Your task to perform on an android device: turn on airplane mode Image 0: 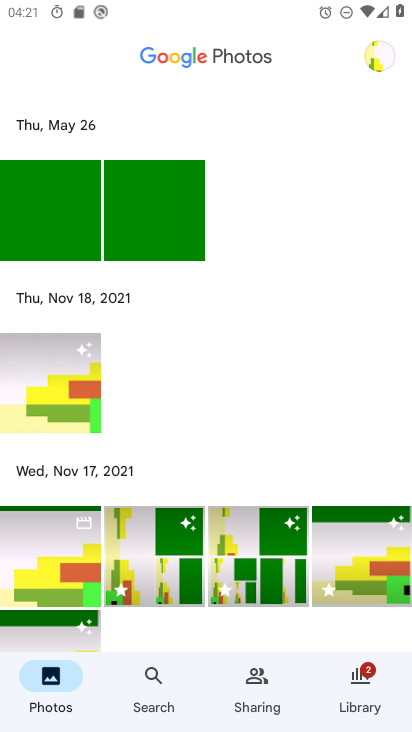
Step 0: press home button
Your task to perform on an android device: turn on airplane mode Image 1: 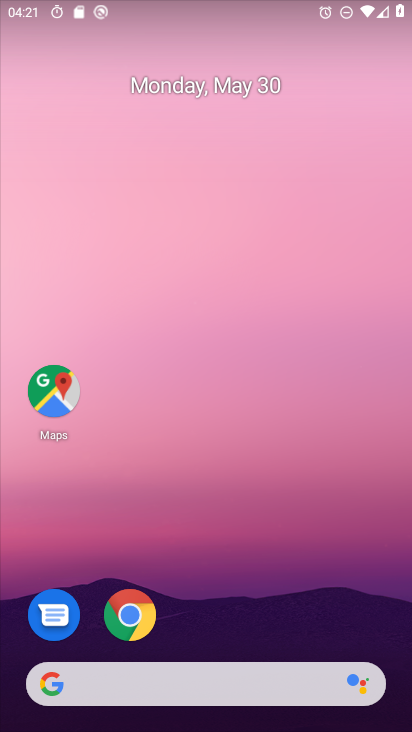
Step 1: drag from (248, 600) to (194, 73)
Your task to perform on an android device: turn on airplane mode Image 2: 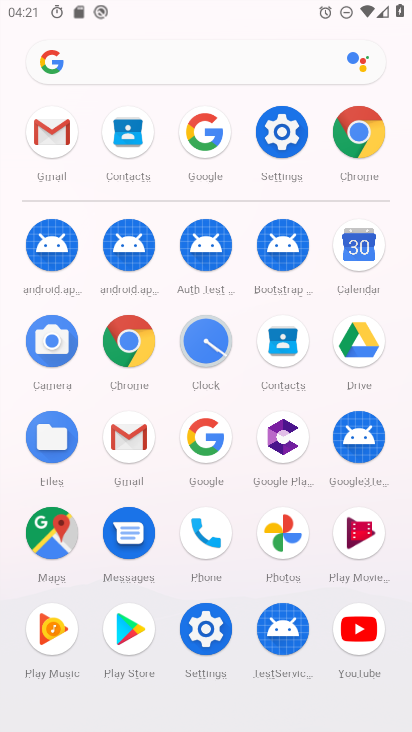
Step 2: click (281, 132)
Your task to perform on an android device: turn on airplane mode Image 3: 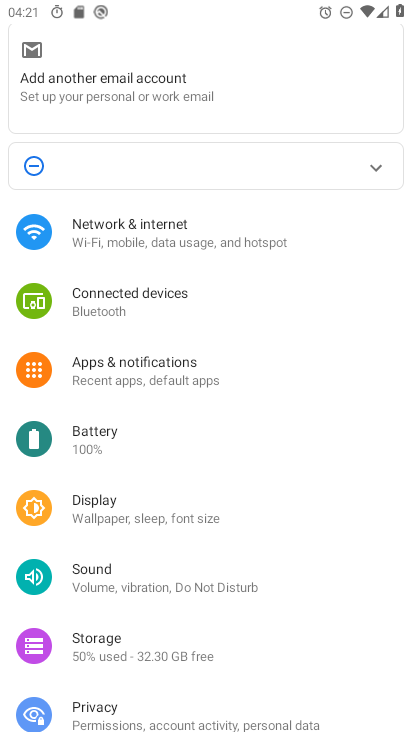
Step 3: click (148, 233)
Your task to perform on an android device: turn on airplane mode Image 4: 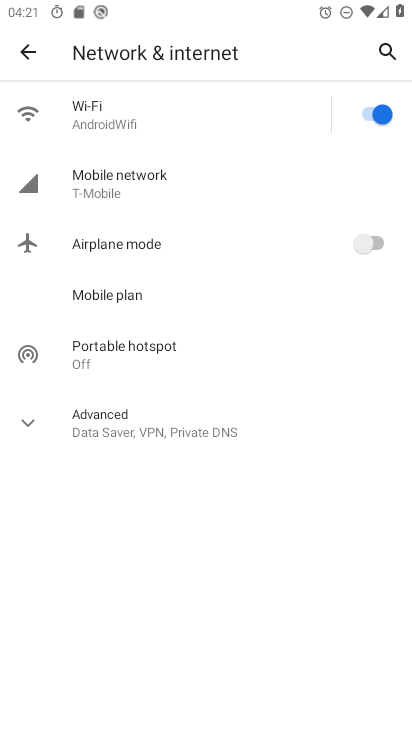
Step 4: click (366, 245)
Your task to perform on an android device: turn on airplane mode Image 5: 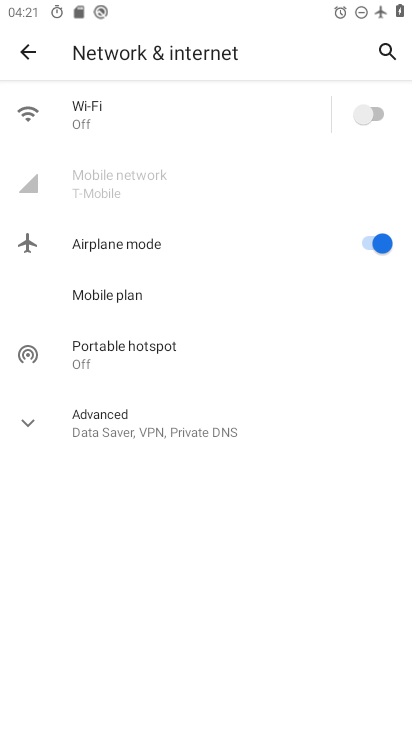
Step 5: task complete